Your task to perform on an android device: Open Youtube and go to "Your channel" Image 0: 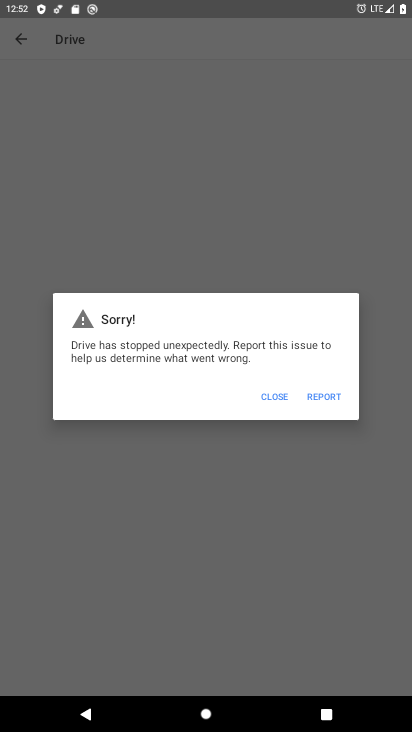
Step 0: click (186, 627)
Your task to perform on an android device: Open Youtube and go to "Your channel" Image 1: 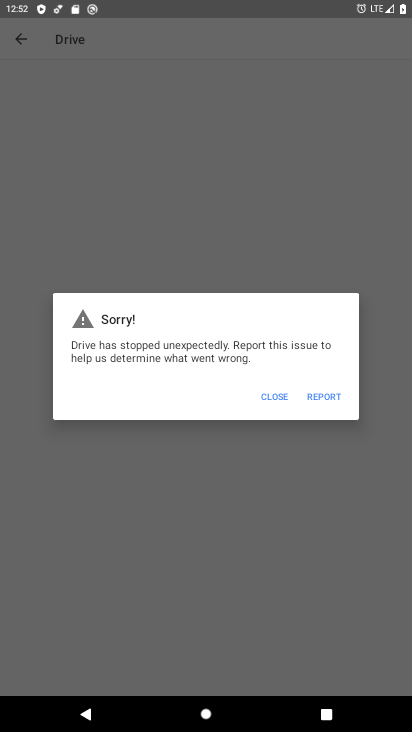
Step 1: press home button
Your task to perform on an android device: Open Youtube and go to "Your channel" Image 2: 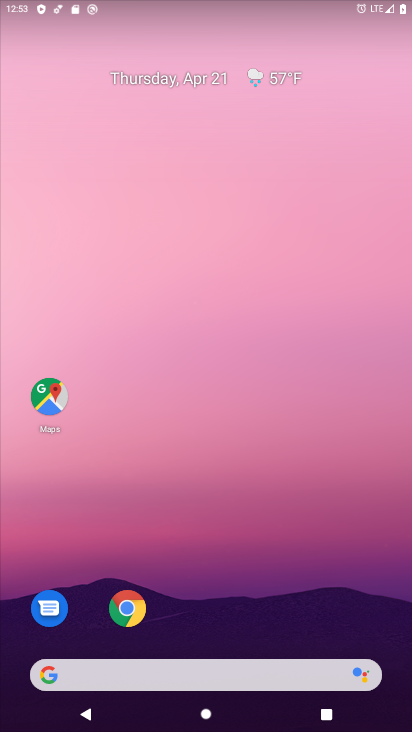
Step 2: drag from (216, 634) to (236, 187)
Your task to perform on an android device: Open Youtube and go to "Your channel" Image 3: 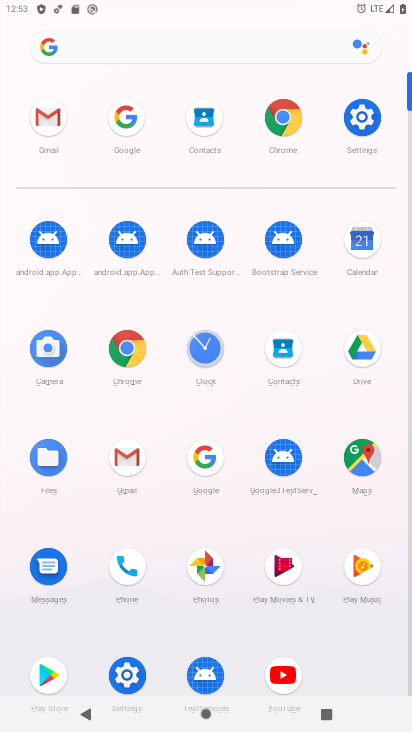
Step 3: click (277, 668)
Your task to perform on an android device: Open Youtube and go to "Your channel" Image 4: 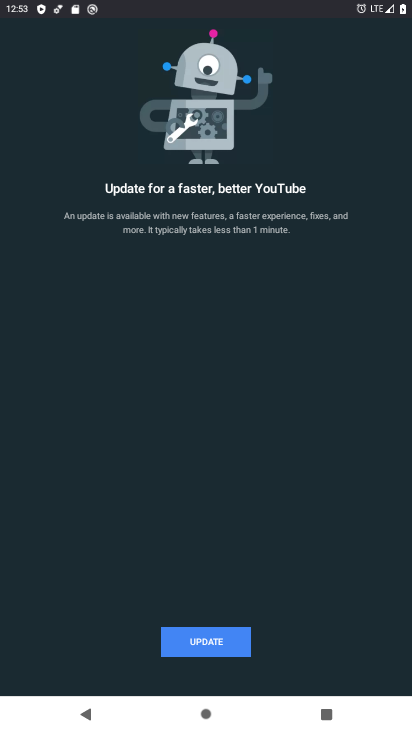
Step 4: press home button
Your task to perform on an android device: Open Youtube and go to "Your channel" Image 5: 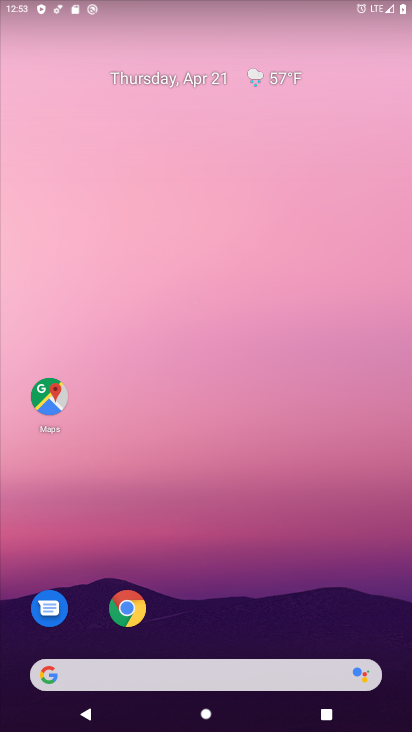
Step 5: drag from (202, 610) to (197, 247)
Your task to perform on an android device: Open Youtube and go to "Your channel" Image 6: 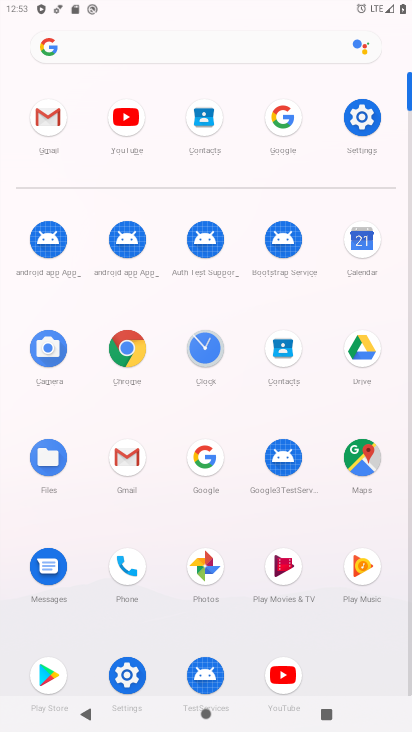
Step 6: click (132, 133)
Your task to perform on an android device: Open Youtube and go to "Your channel" Image 7: 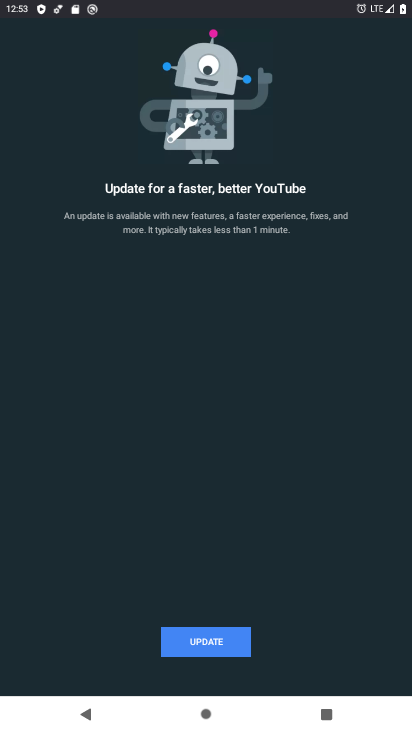
Step 7: click (216, 629)
Your task to perform on an android device: Open Youtube and go to "Your channel" Image 8: 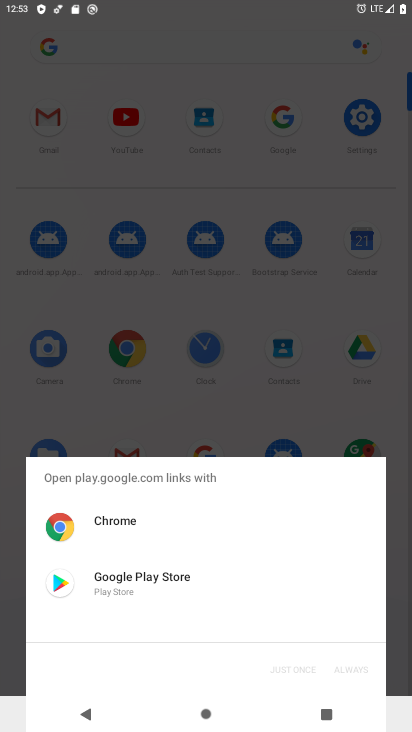
Step 8: click (184, 586)
Your task to perform on an android device: Open Youtube and go to "Your channel" Image 9: 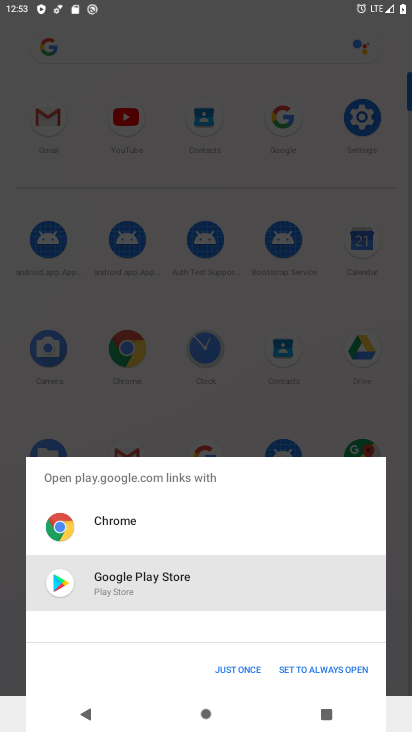
Step 9: click (232, 661)
Your task to perform on an android device: Open Youtube and go to "Your channel" Image 10: 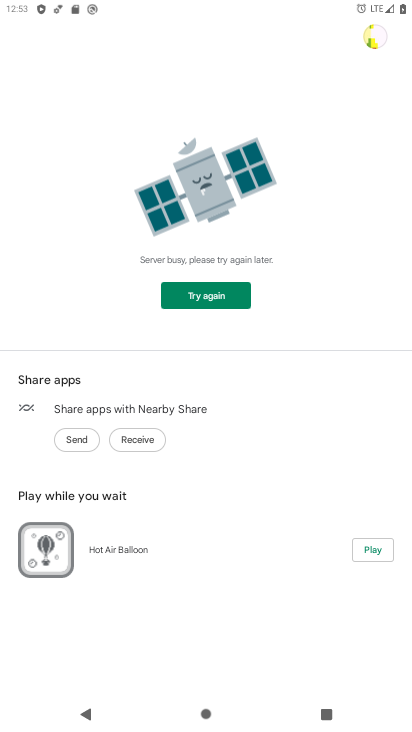
Step 10: task complete